Your task to perform on an android device: choose inbox layout in the gmail app Image 0: 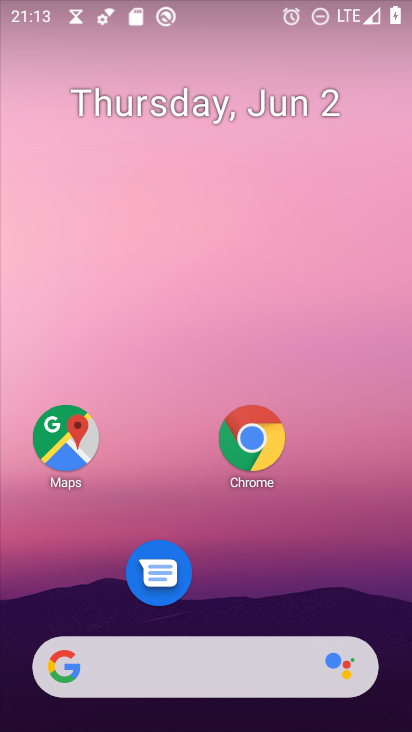
Step 0: press home button
Your task to perform on an android device: choose inbox layout in the gmail app Image 1: 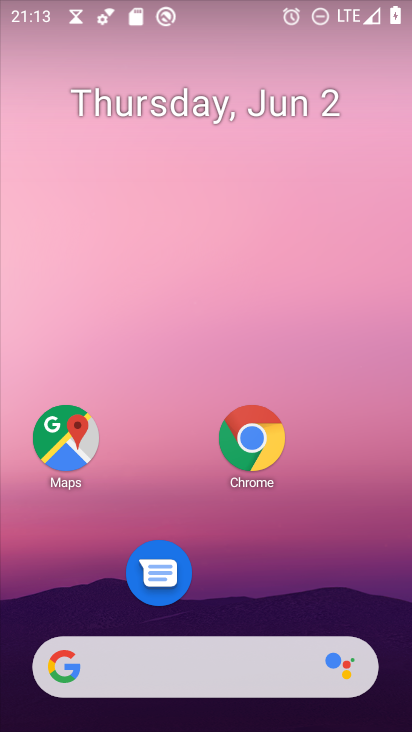
Step 1: drag from (175, 679) to (268, 185)
Your task to perform on an android device: choose inbox layout in the gmail app Image 2: 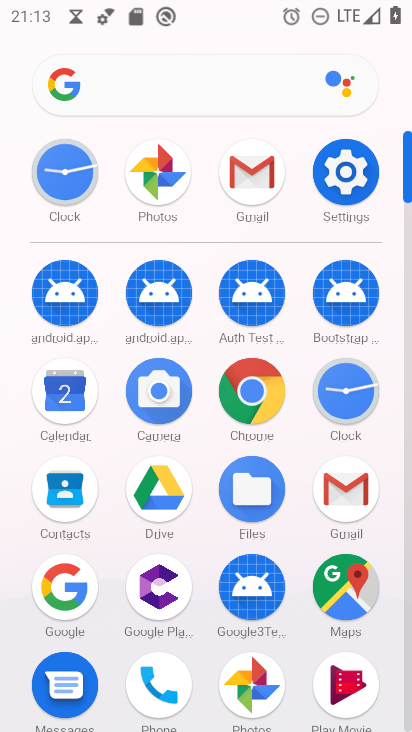
Step 2: click (262, 194)
Your task to perform on an android device: choose inbox layout in the gmail app Image 3: 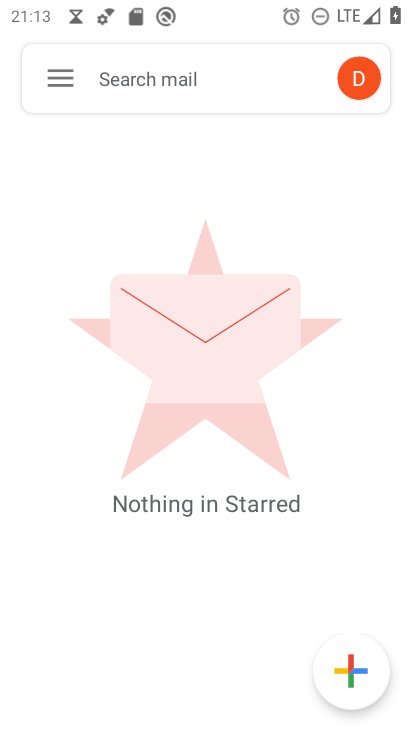
Step 3: click (57, 85)
Your task to perform on an android device: choose inbox layout in the gmail app Image 4: 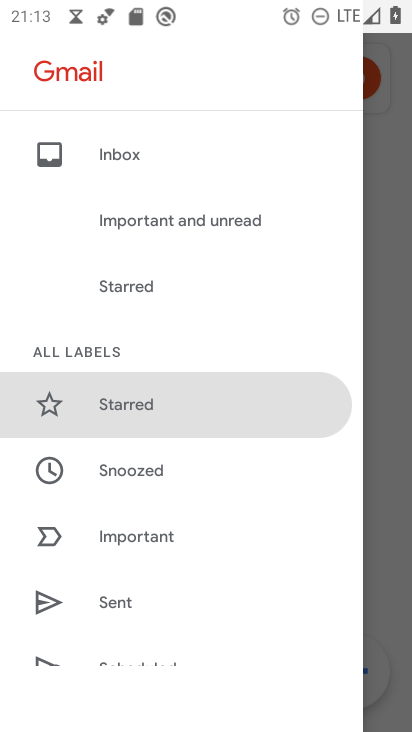
Step 4: drag from (203, 594) to (289, 79)
Your task to perform on an android device: choose inbox layout in the gmail app Image 5: 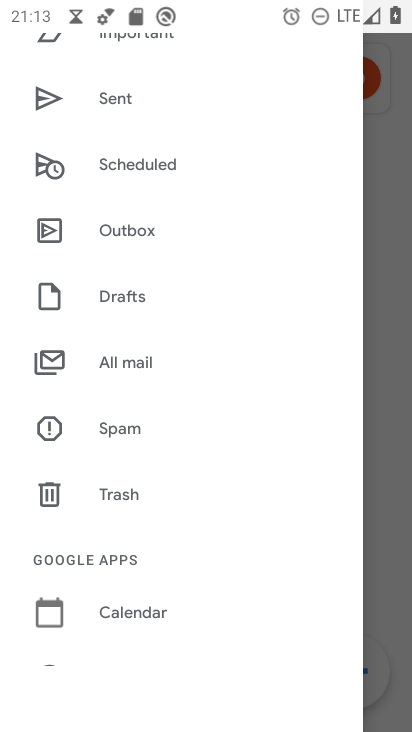
Step 5: drag from (214, 573) to (270, 149)
Your task to perform on an android device: choose inbox layout in the gmail app Image 6: 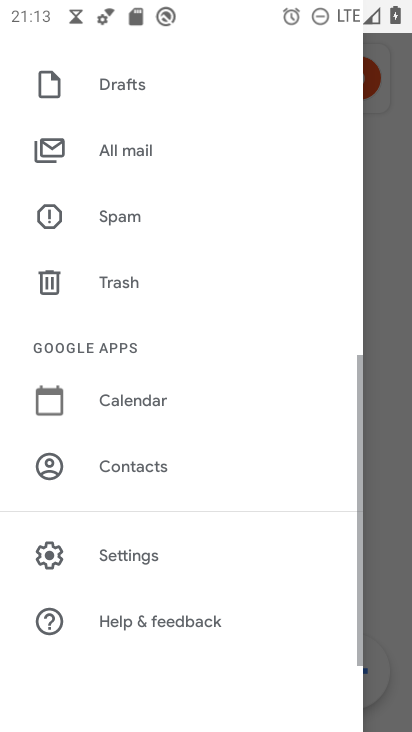
Step 6: click (148, 558)
Your task to perform on an android device: choose inbox layout in the gmail app Image 7: 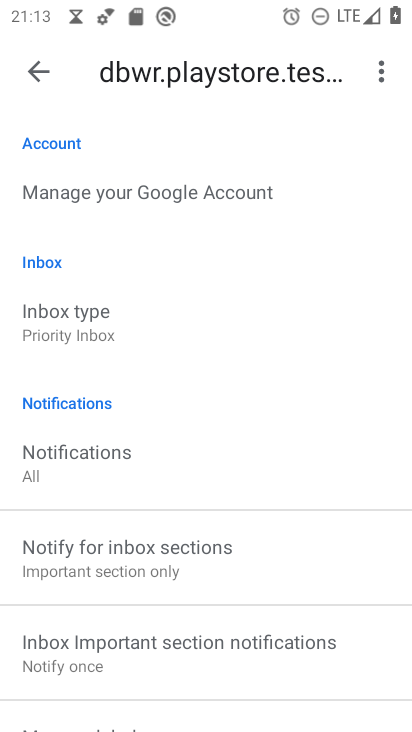
Step 7: click (69, 329)
Your task to perform on an android device: choose inbox layout in the gmail app Image 8: 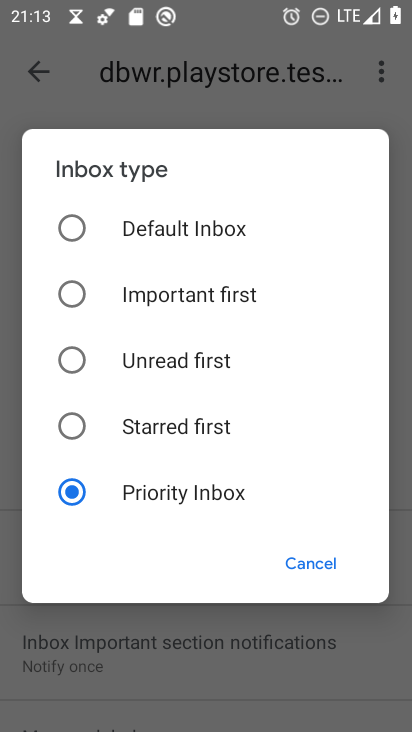
Step 8: click (76, 232)
Your task to perform on an android device: choose inbox layout in the gmail app Image 9: 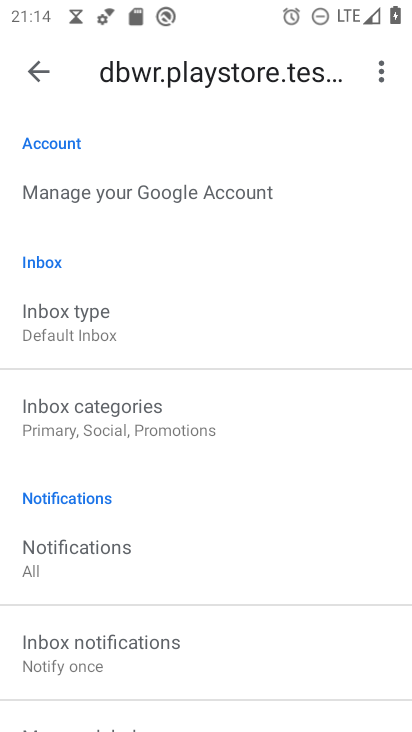
Step 9: task complete